Your task to perform on an android device: Search for "macbook" on walmart.com, select the first entry, and add it to the cart. Image 0: 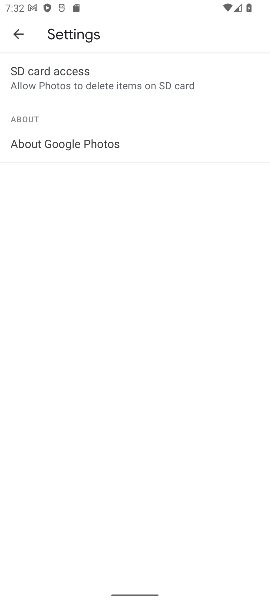
Step 0: press home button
Your task to perform on an android device: Search for "macbook" on walmart.com, select the first entry, and add it to the cart. Image 1: 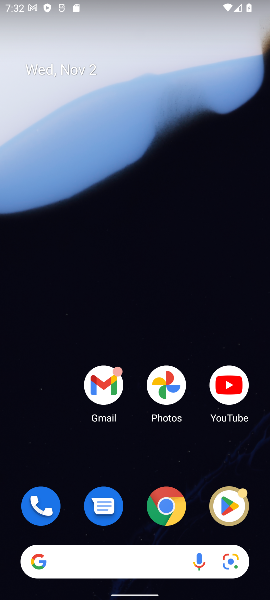
Step 1: click (139, 560)
Your task to perform on an android device: Search for "macbook" on walmart.com, select the first entry, and add it to the cart. Image 2: 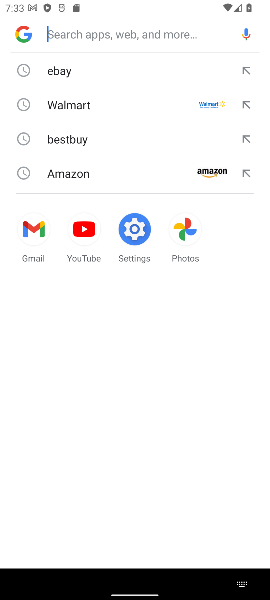
Step 2: type "walmart.com"
Your task to perform on an android device: Search for "macbook" on walmart.com, select the first entry, and add it to the cart. Image 3: 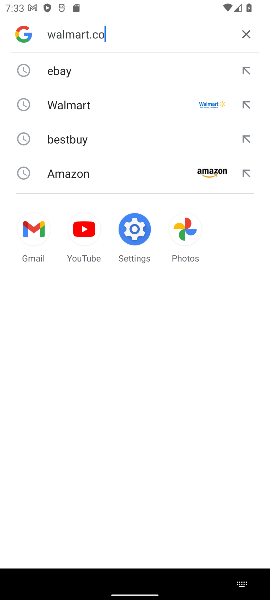
Step 3: type ""
Your task to perform on an android device: Search for "macbook" on walmart.com, select the first entry, and add it to the cart. Image 4: 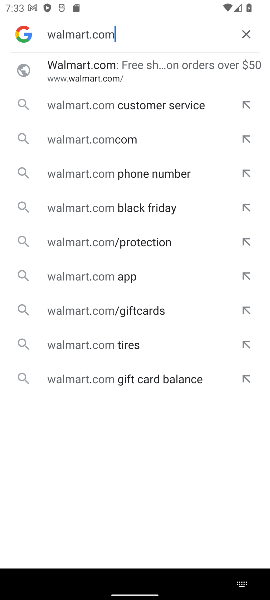
Step 4: press enter
Your task to perform on an android device: Search for "macbook" on walmart.com, select the first entry, and add it to the cart. Image 5: 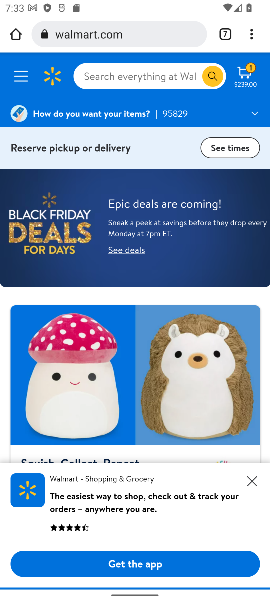
Step 5: click (124, 77)
Your task to perform on an android device: Search for "macbook" on walmart.com, select the first entry, and add it to the cart. Image 6: 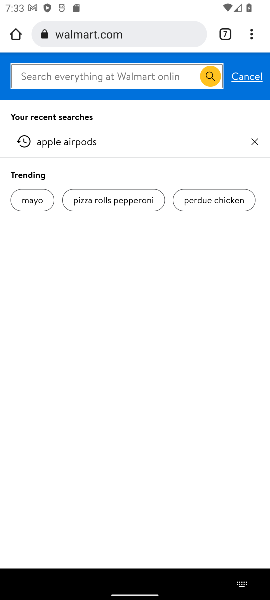
Step 6: type "macbook"
Your task to perform on an android device: Search for "macbook" on walmart.com, select the first entry, and add it to the cart. Image 7: 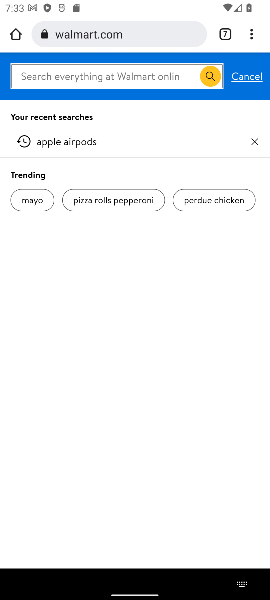
Step 7: type ""
Your task to perform on an android device: Search for "macbook" on walmart.com, select the first entry, and add it to the cart. Image 8: 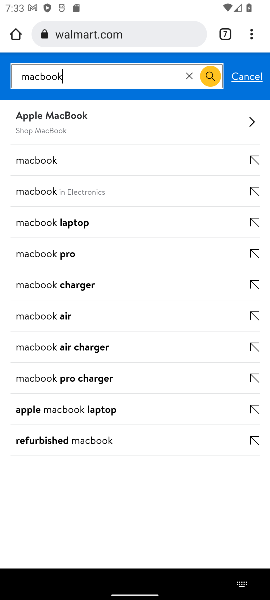
Step 8: press enter
Your task to perform on an android device: Search for "macbook" on walmart.com, select the first entry, and add it to the cart. Image 9: 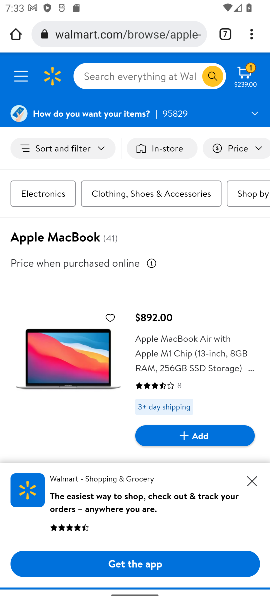
Step 9: click (203, 437)
Your task to perform on an android device: Search for "macbook" on walmart.com, select the first entry, and add it to the cart. Image 10: 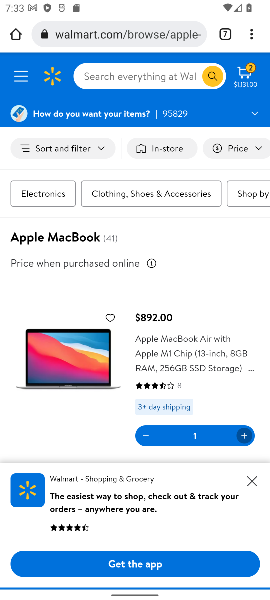
Step 10: task complete